Your task to perform on an android device: When is my next appointment? Image 0: 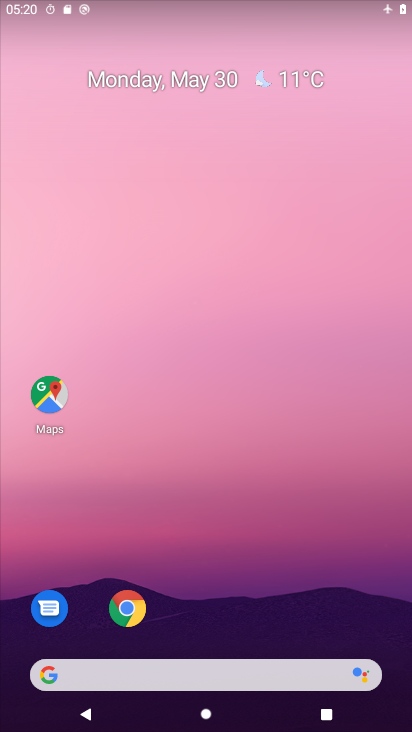
Step 0: drag from (276, 494) to (168, 5)
Your task to perform on an android device: When is my next appointment? Image 1: 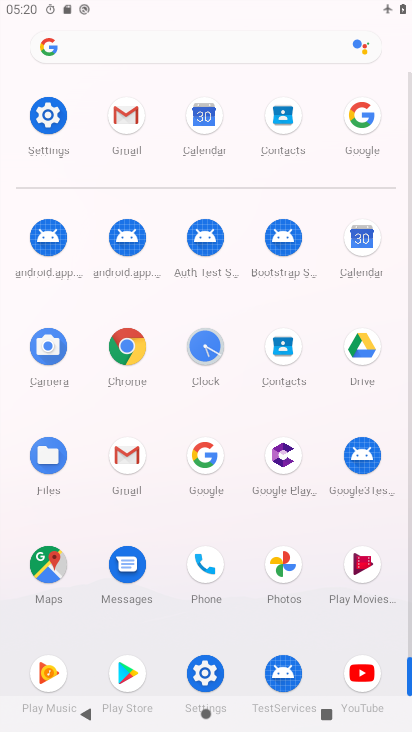
Step 1: click (360, 235)
Your task to perform on an android device: When is my next appointment? Image 2: 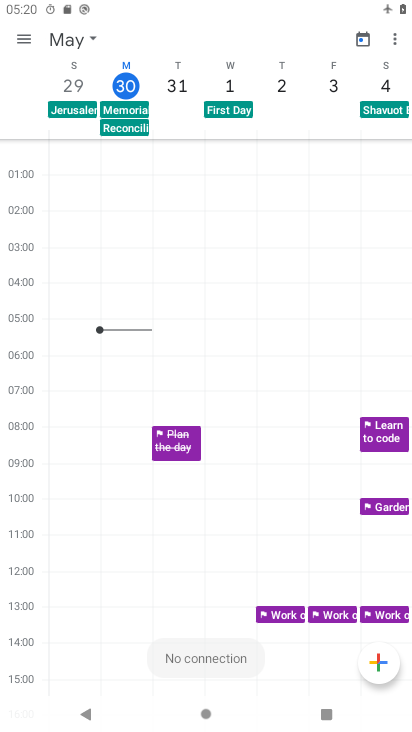
Step 2: task complete